Your task to perform on an android device: install app "ColorNote Notepad Notes" Image 0: 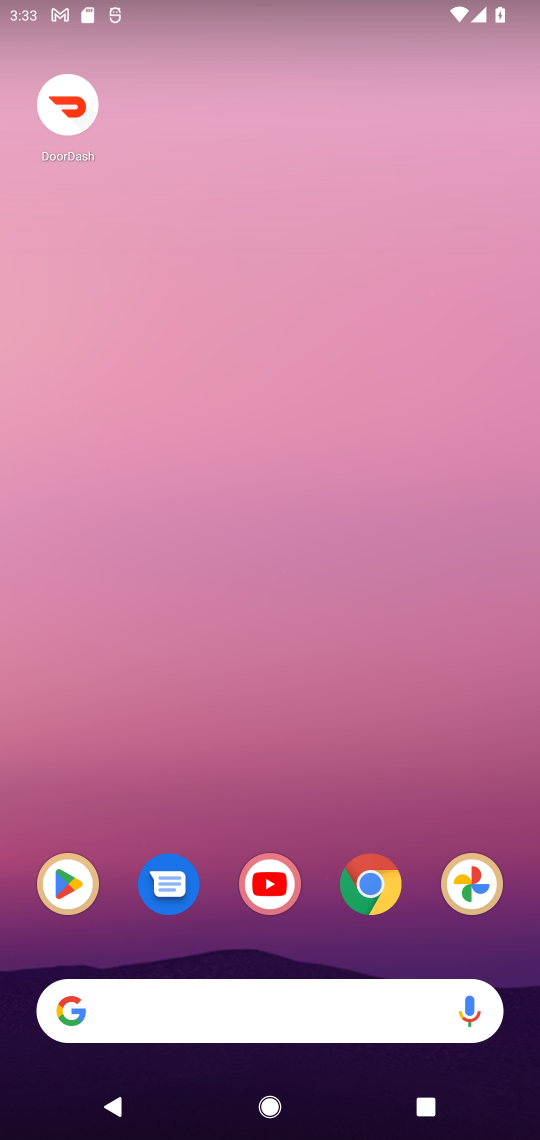
Step 0: click (304, 295)
Your task to perform on an android device: install app "ColorNote Notepad Notes" Image 1: 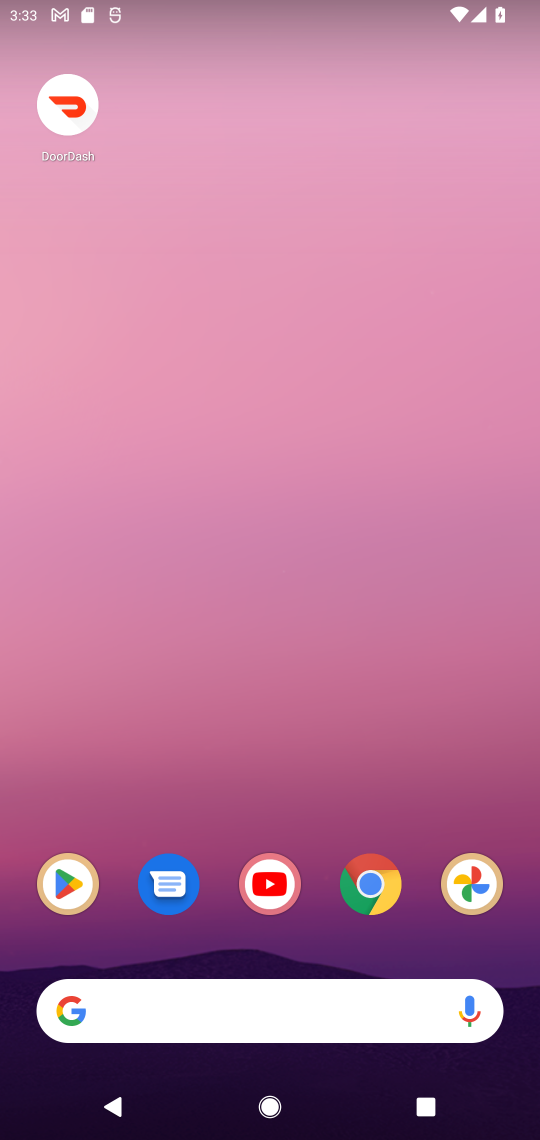
Step 1: drag from (288, 272) to (238, 261)
Your task to perform on an android device: install app "ColorNote Notepad Notes" Image 2: 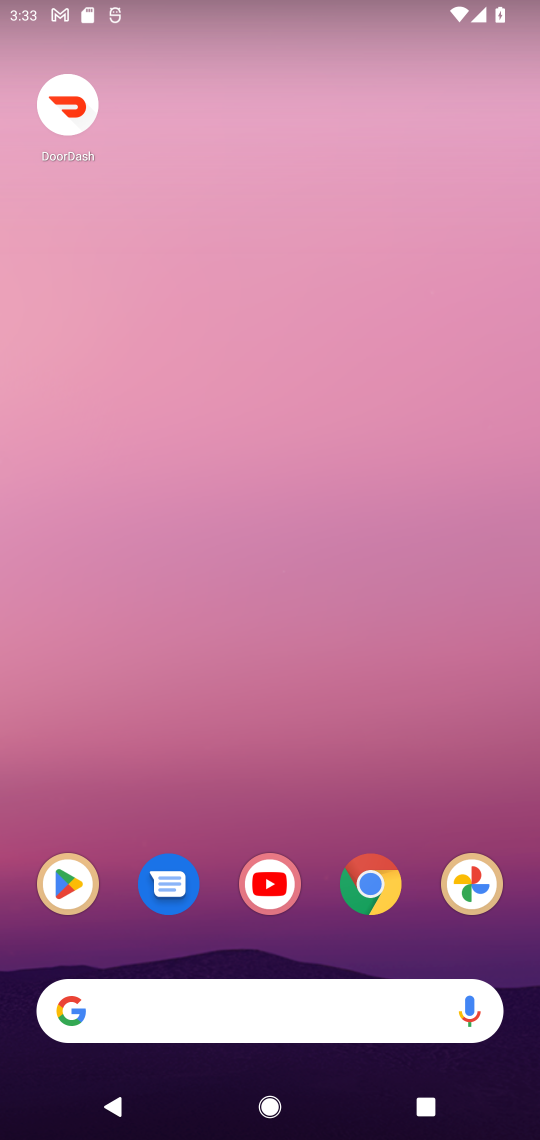
Step 2: drag from (304, 743) to (245, 138)
Your task to perform on an android device: install app "ColorNote Notepad Notes" Image 3: 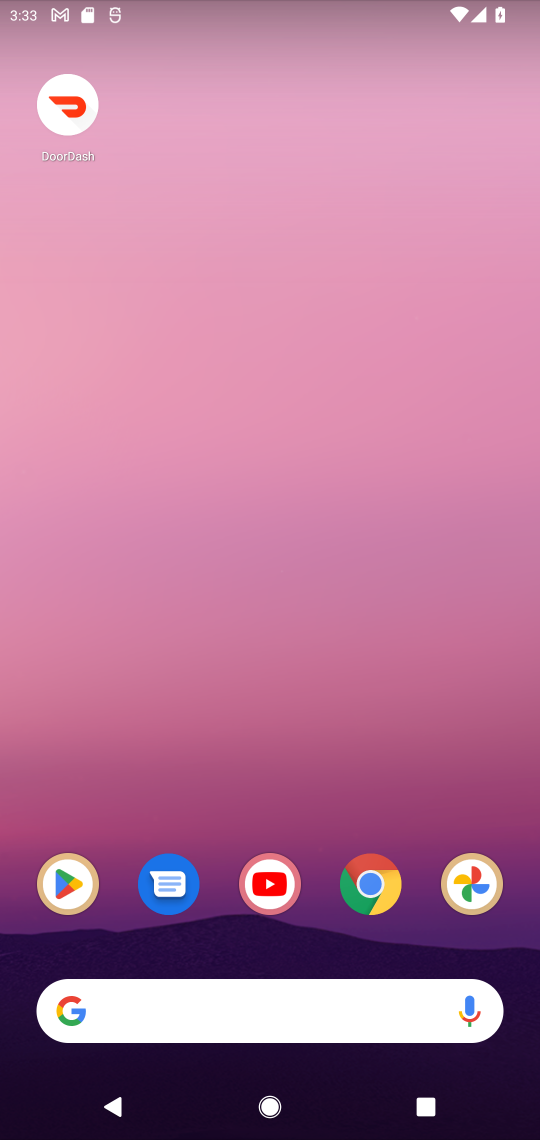
Step 3: drag from (291, 590) to (251, 319)
Your task to perform on an android device: install app "ColorNote Notepad Notes" Image 4: 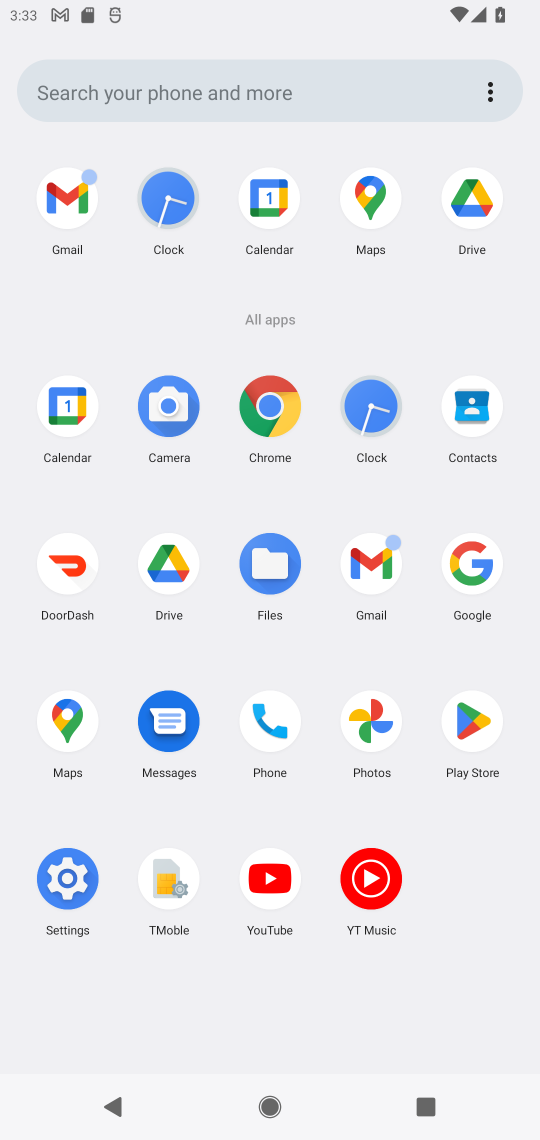
Step 4: drag from (273, 907) to (194, 322)
Your task to perform on an android device: install app "ColorNote Notepad Notes" Image 5: 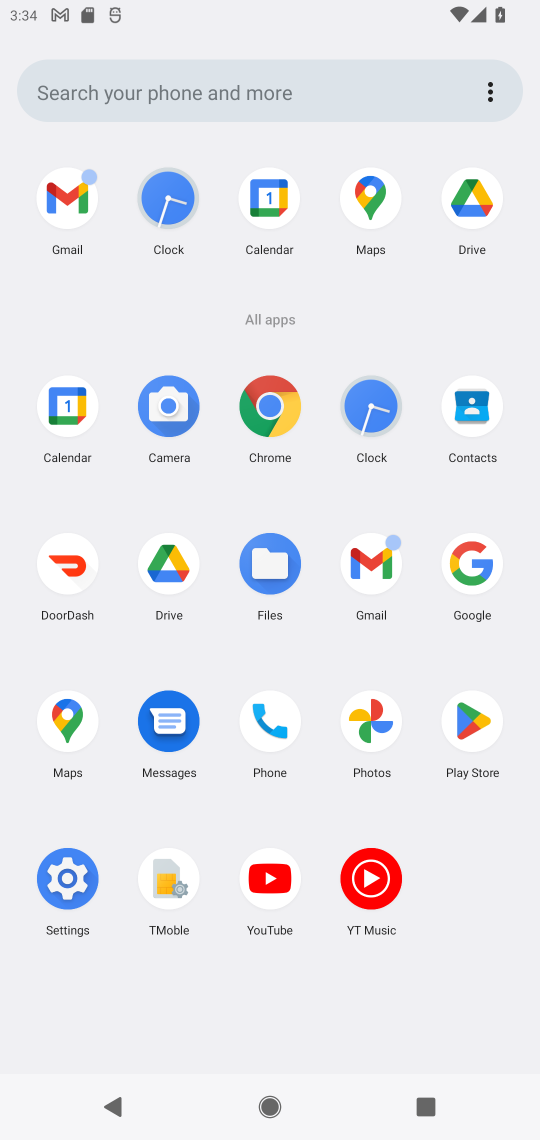
Step 5: click (476, 722)
Your task to perform on an android device: install app "ColorNote Notepad Notes" Image 6: 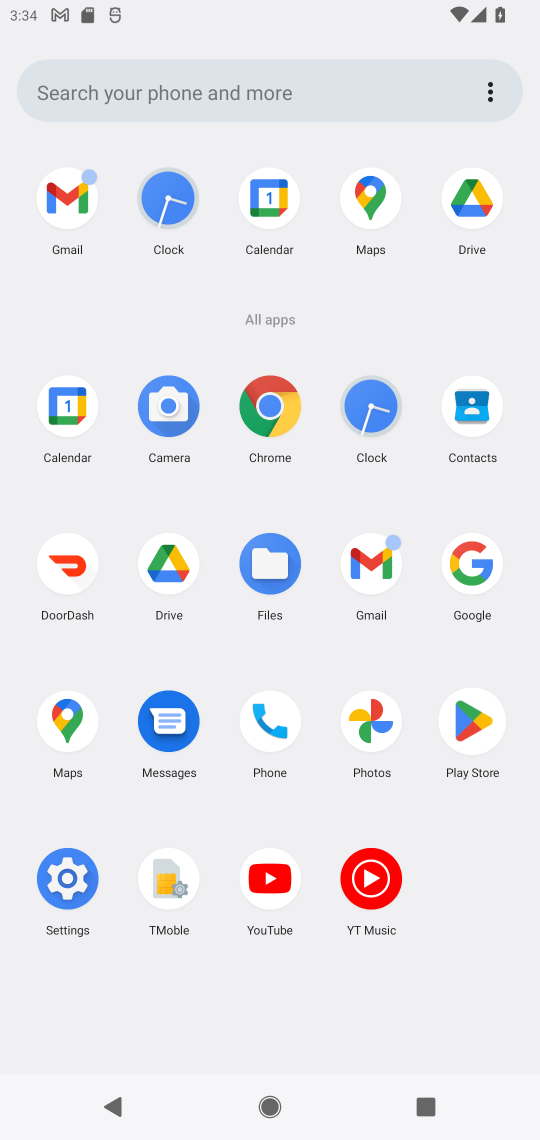
Step 6: click (476, 722)
Your task to perform on an android device: install app "ColorNote Notepad Notes" Image 7: 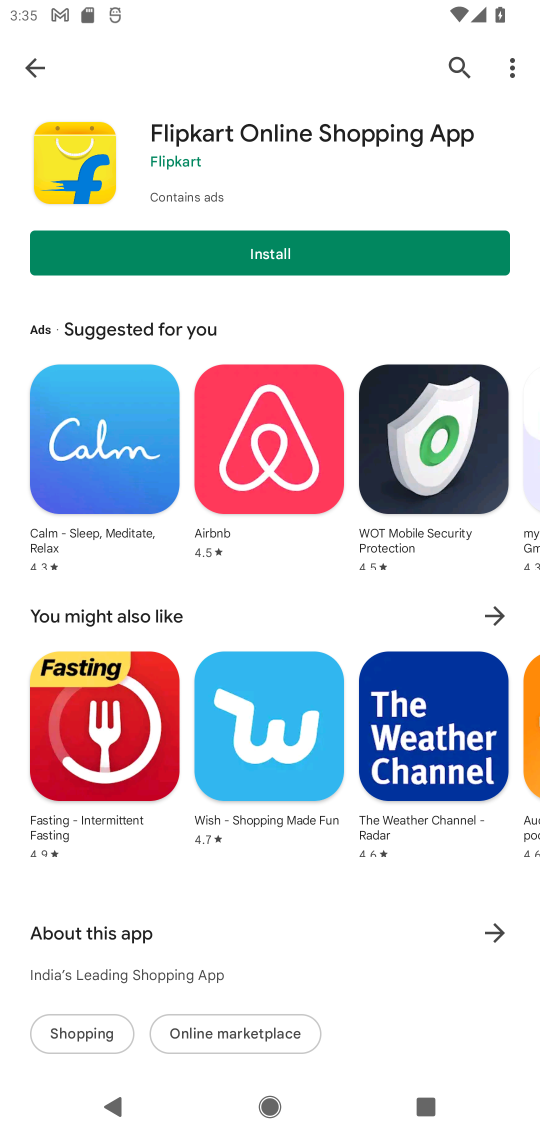
Step 7: click (26, 69)
Your task to perform on an android device: install app "ColorNote Notepad Notes" Image 8: 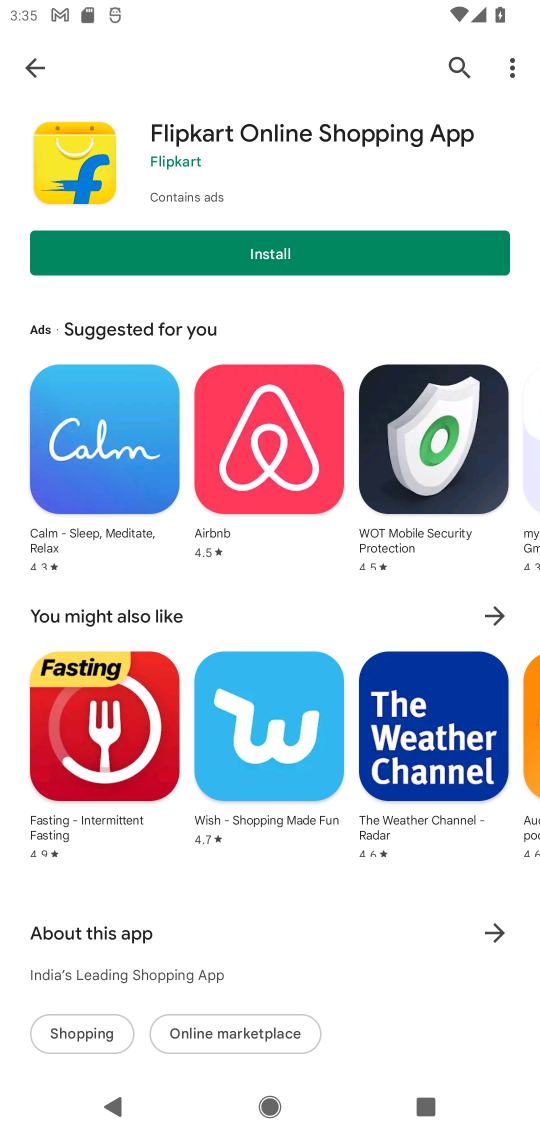
Step 8: click (24, 70)
Your task to perform on an android device: install app "ColorNote Notepad Notes" Image 9: 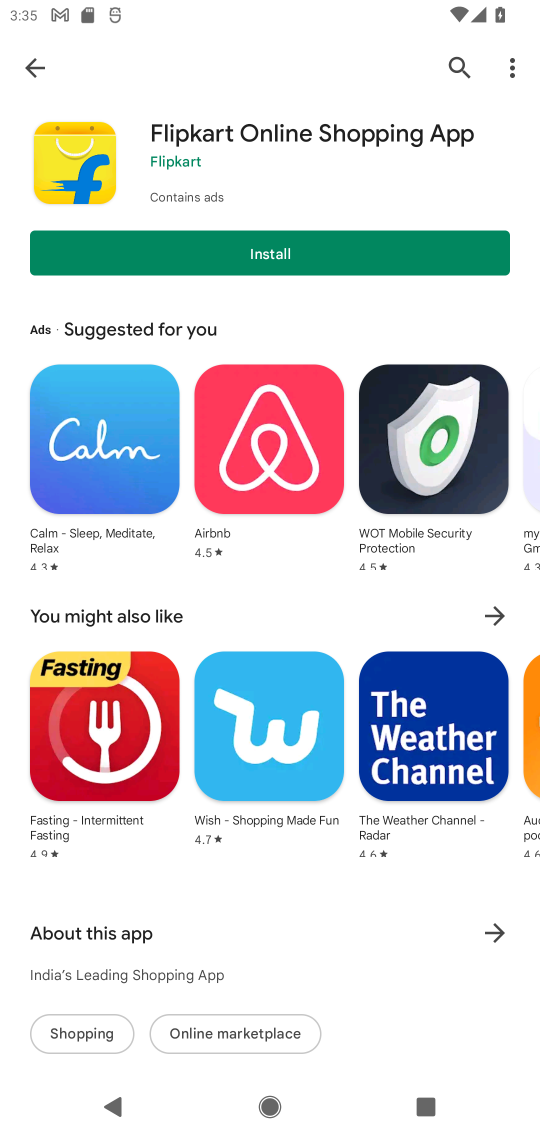
Step 9: drag from (22, 55) to (29, 122)
Your task to perform on an android device: install app "ColorNote Notepad Notes" Image 10: 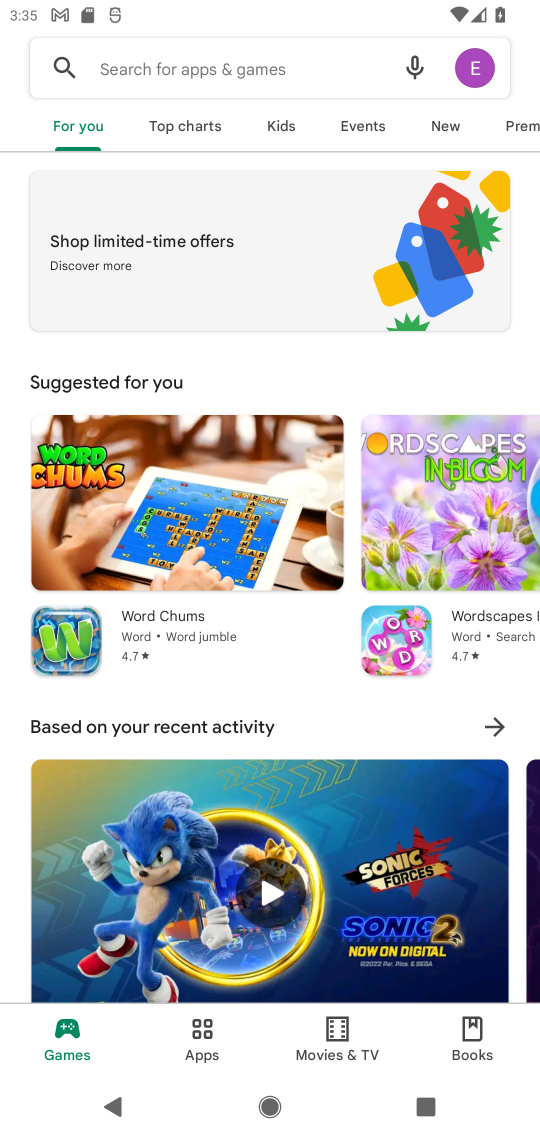
Step 10: click (135, 77)
Your task to perform on an android device: install app "ColorNote Notepad Notes" Image 11: 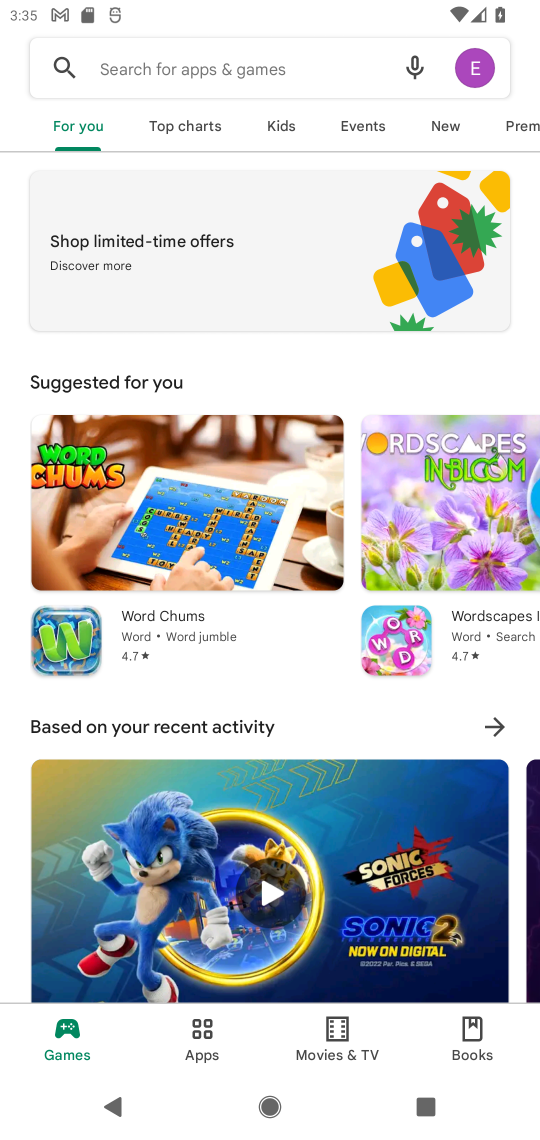
Step 11: click (134, 75)
Your task to perform on an android device: install app "ColorNote Notepad Notes" Image 12: 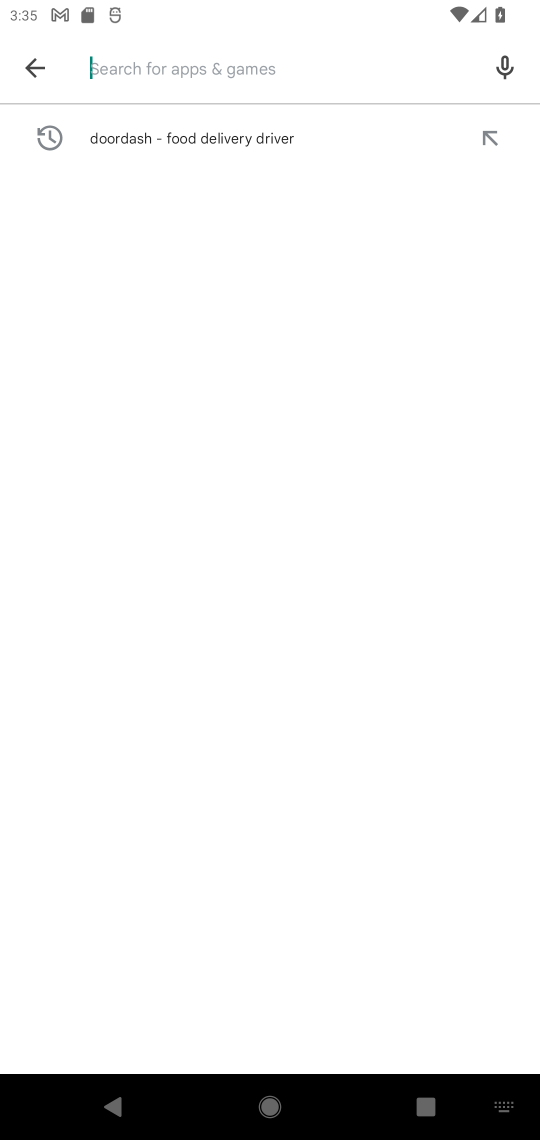
Step 12: type "colornote notepad notes"
Your task to perform on an android device: install app "ColorNote Notepad Notes" Image 13: 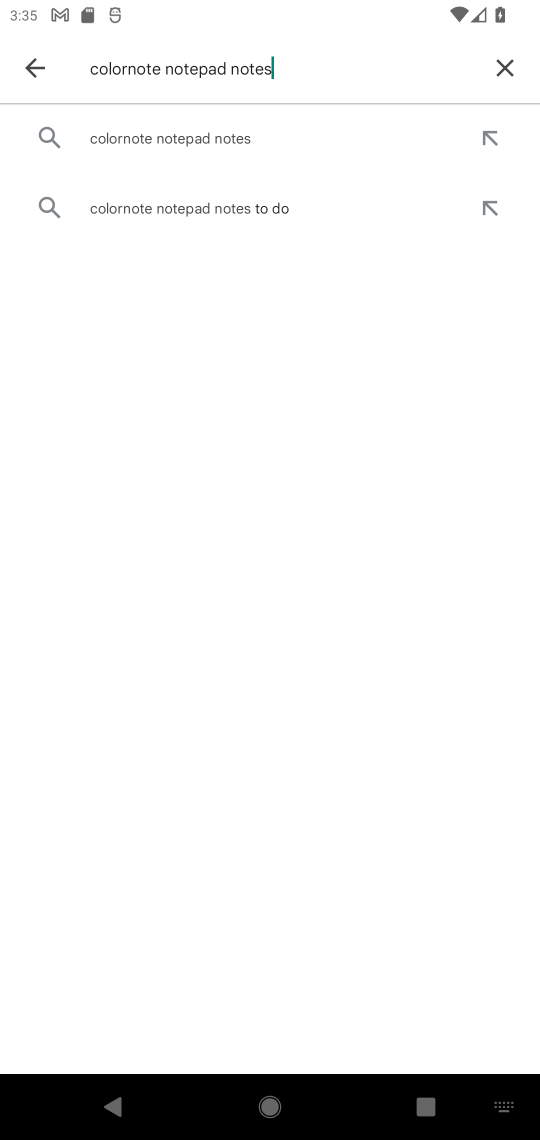
Step 13: type "]"
Your task to perform on an android device: install app "ColorNote Notepad Notes" Image 14: 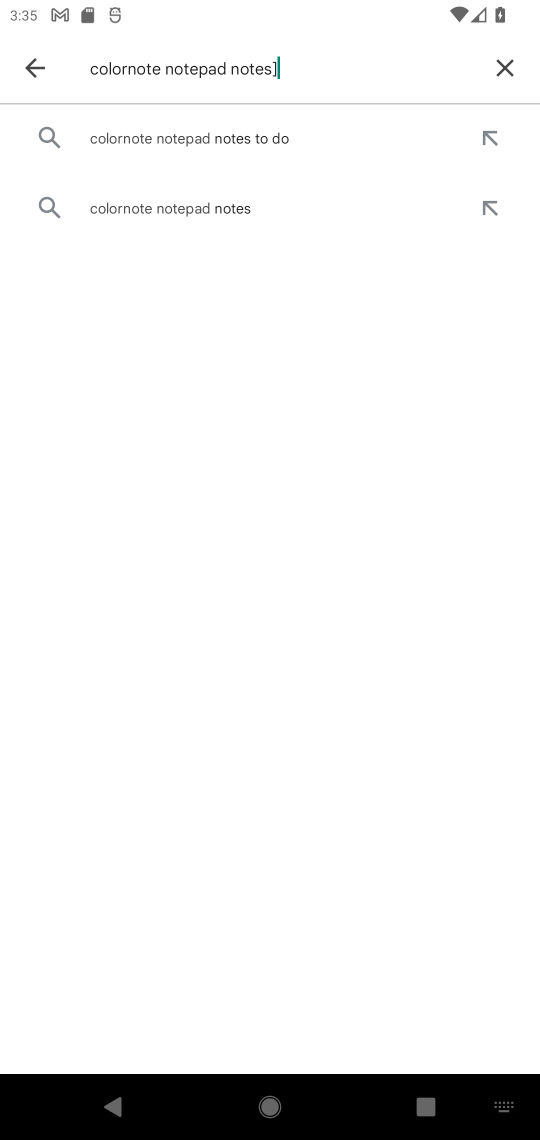
Step 14: click (218, 137)
Your task to perform on an android device: install app "ColorNote Notepad Notes" Image 15: 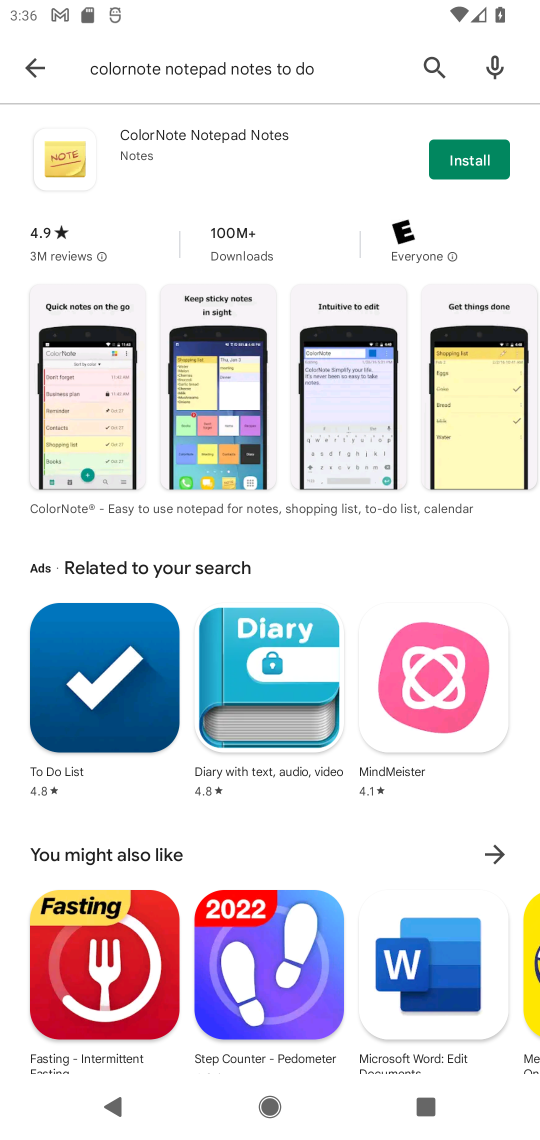
Step 15: click (477, 154)
Your task to perform on an android device: install app "ColorNote Notepad Notes" Image 16: 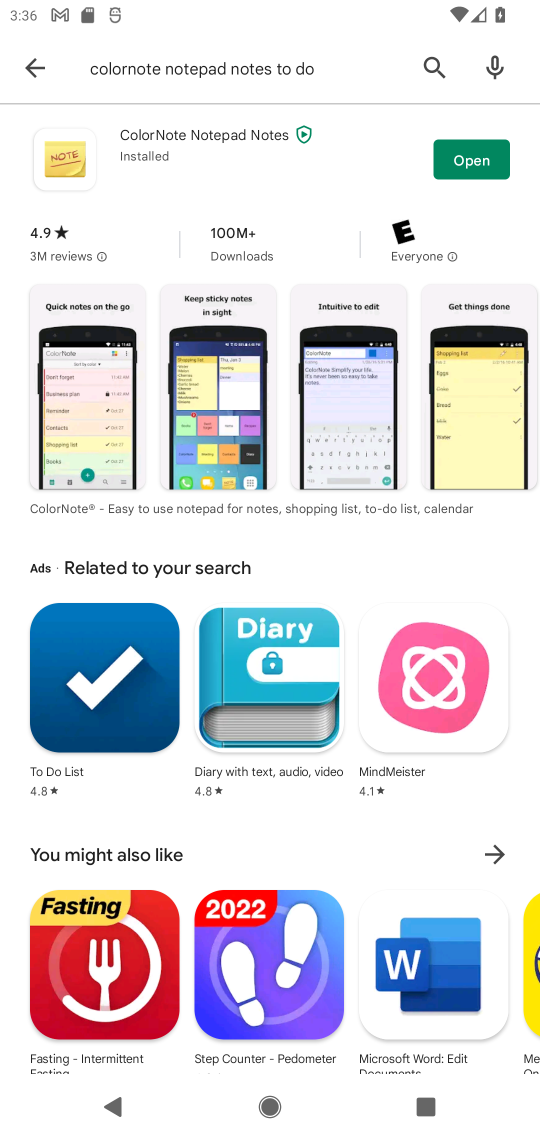
Step 16: click (467, 168)
Your task to perform on an android device: install app "ColorNote Notepad Notes" Image 17: 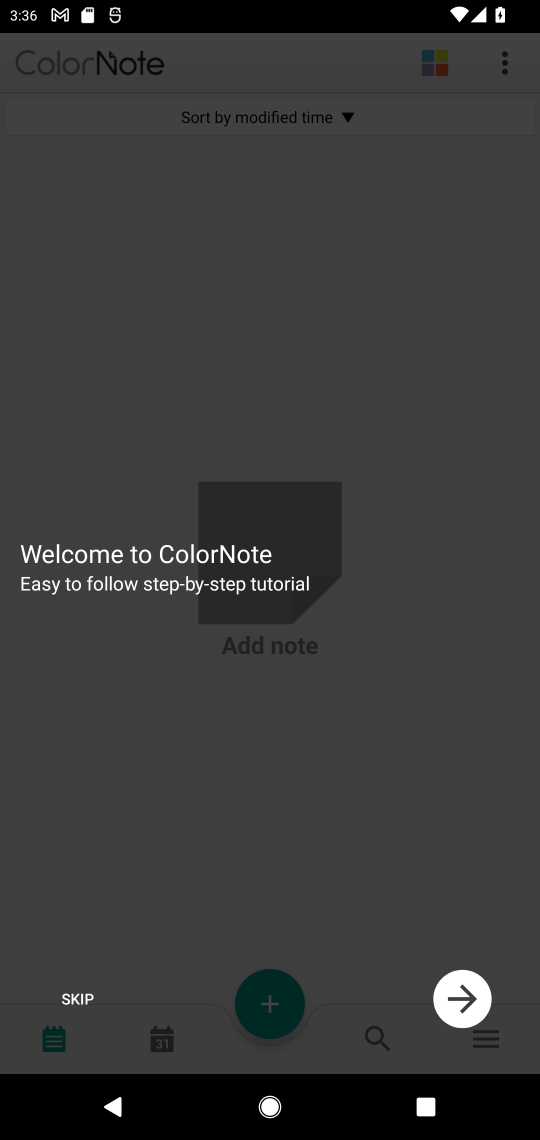
Step 17: click (448, 984)
Your task to perform on an android device: install app "ColorNote Notepad Notes" Image 18: 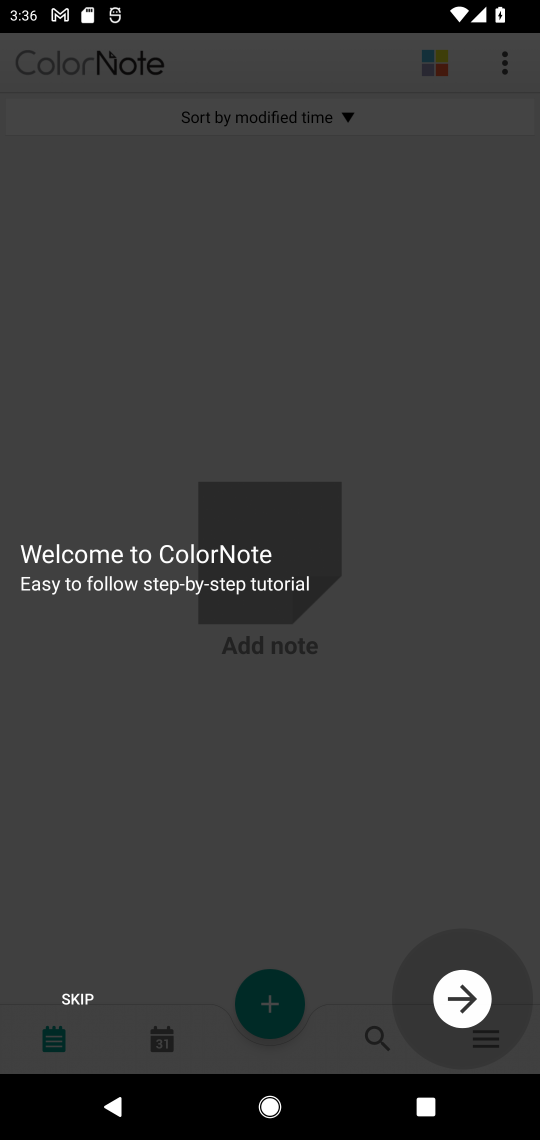
Step 18: click (379, 472)
Your task to perform on an android device: install app "ColorNote Notepad Notes" Image 19: 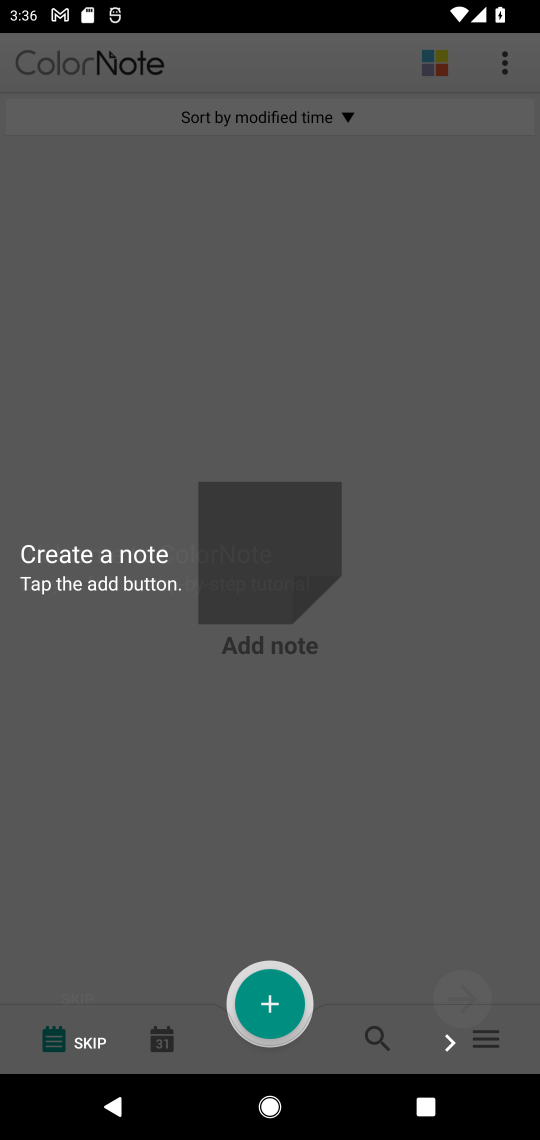
Step 19: click (380, 471)
Your task to perform on an android device: install app "ColorNote Notepad Notes" Image 20: 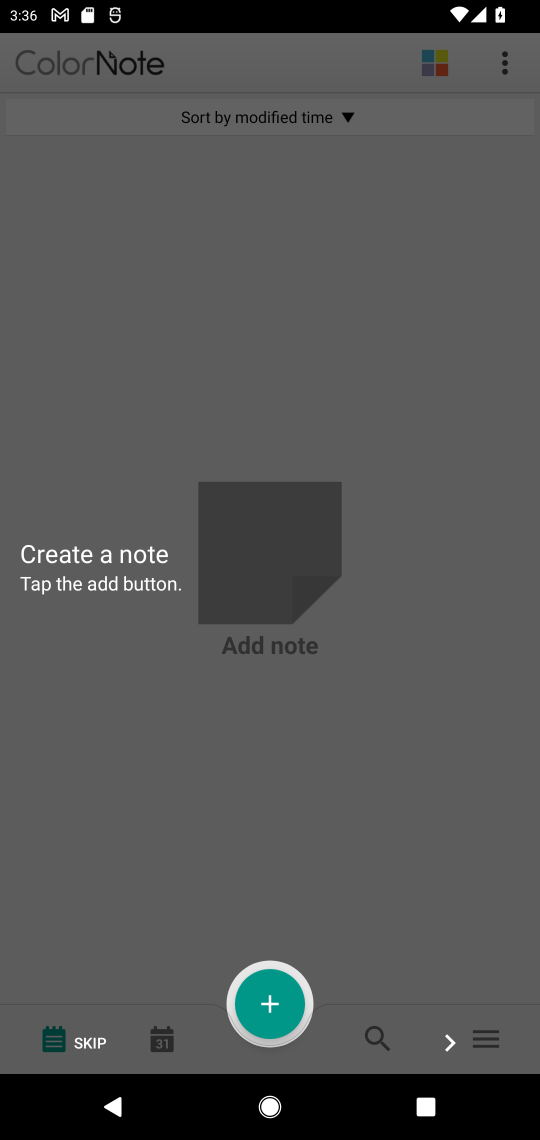
Step 20: task complete